Your task to perform on an android device: turn on bluetooth scan Image 0: 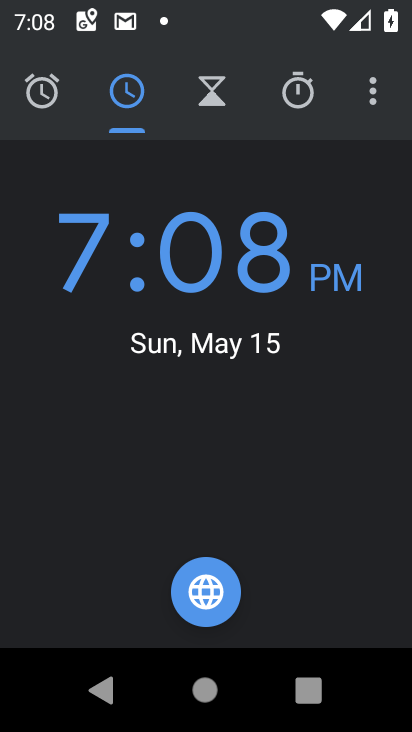
Step 0: press home button
Your task to perform on an android device: turn on bluetooth scan Image 1: 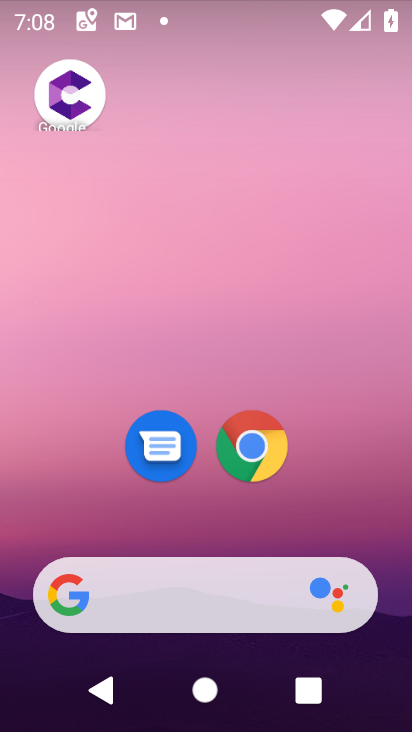
Step 1: drag from (237, 648) to (213, 257)
Your task to perform on an android device: turn on bluetooth scan Image 2: 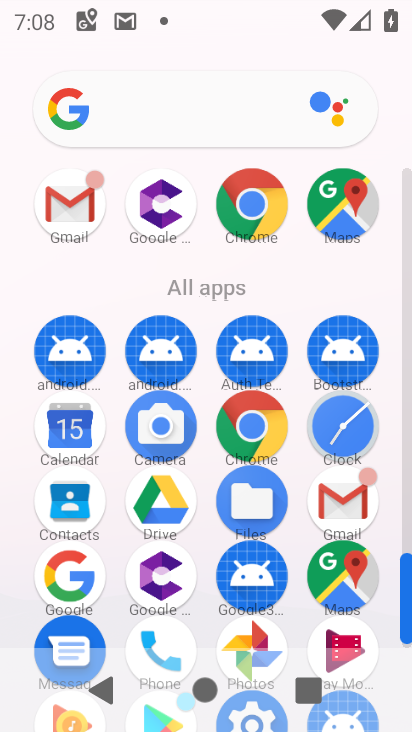
Step 2: drag from (191, 610) to (184, 485)
Your task to perform on an android device: turn on bluetooth scan Image 3: 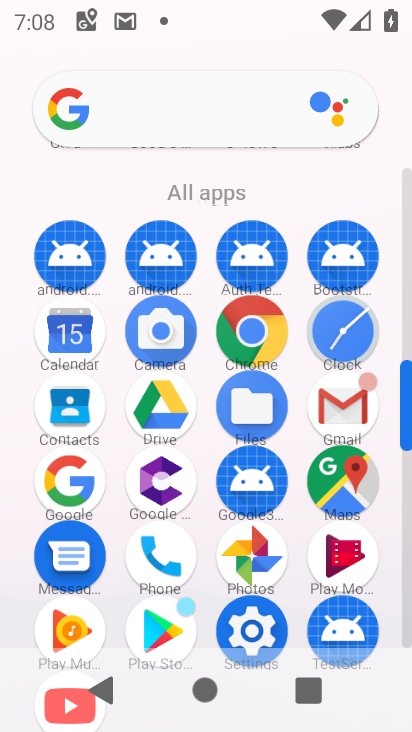
Step 3: click (260, 621)
Your task to perform on an android device: turn on bluetooth scan Image 4: 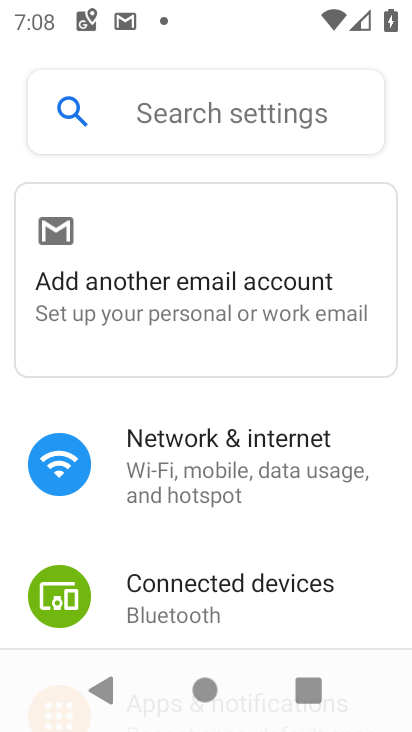
Step 4: click (172, 125)
Your task to perform on an android device: turn on bluetooth scan Image 5: 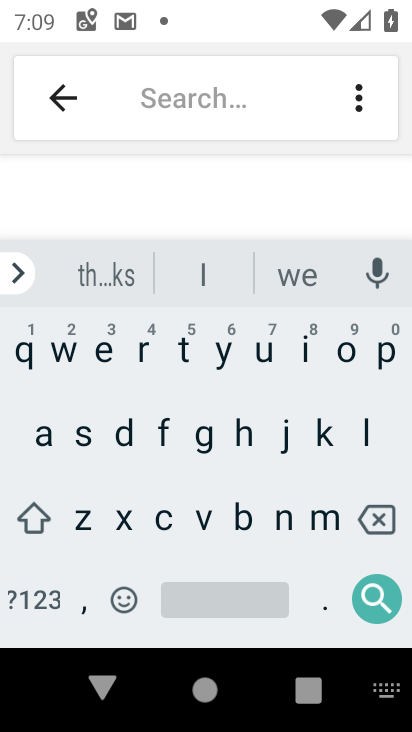
Step 5: click (361, 434)
Your task to perform on an android device: turn on bluetooth scan Image 6: 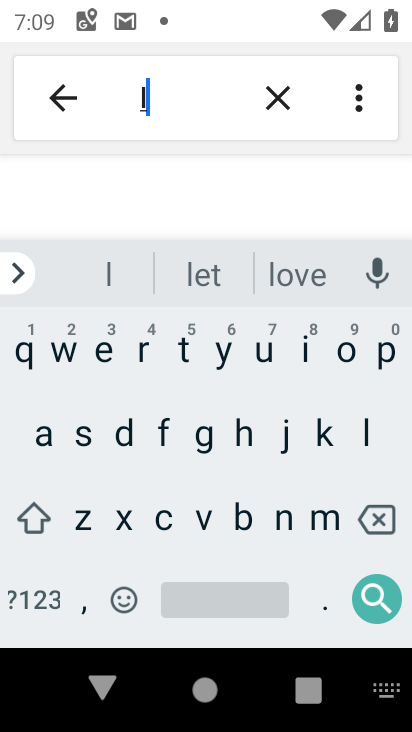
Step 6: click (344, 348)
Your task to perform on an android device: turn on bluetooth scan Image 7: 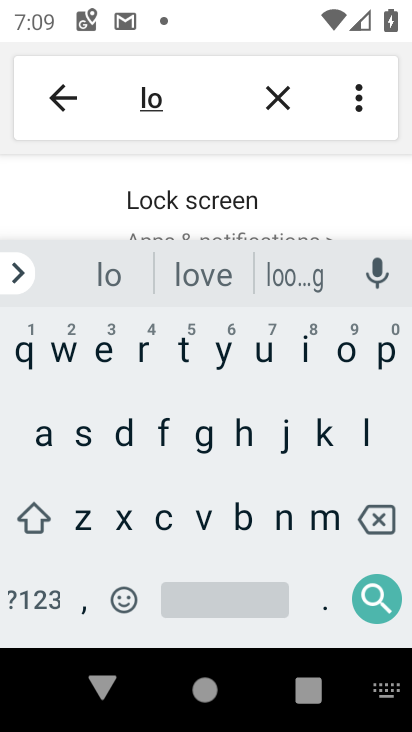
Step 7: press back button
Your task to perform on an android device: turn on bluetooth scan Image 8: 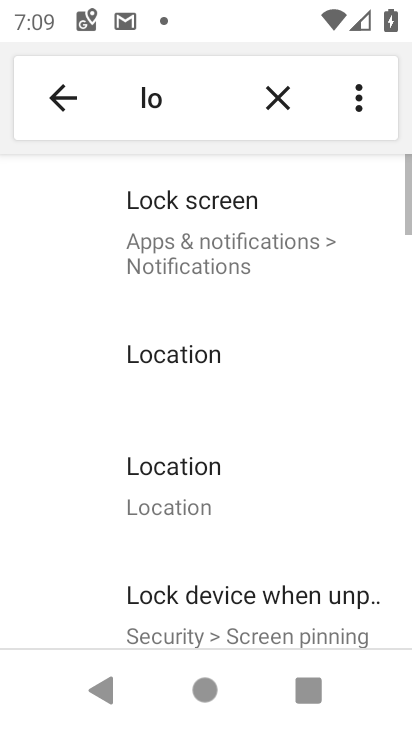
Step 8: click (195, 477)
Your task to perform on an android device: turn on bluetooth scan Image 9: 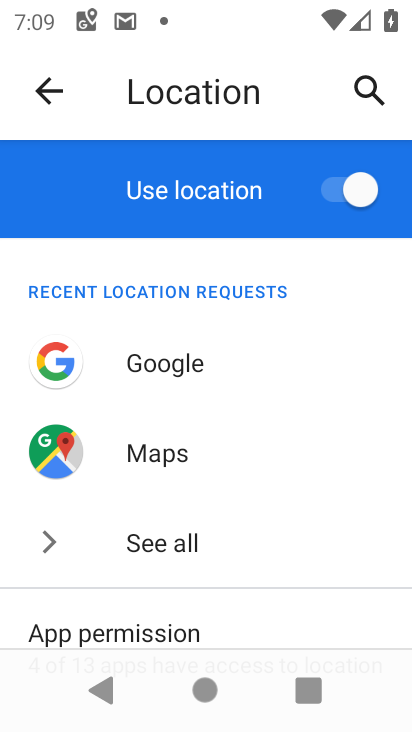
Step 9: drag from (154, 539) to (150, 396)
Your task to perform on an android device: turn on bluetooth scan Image 10: 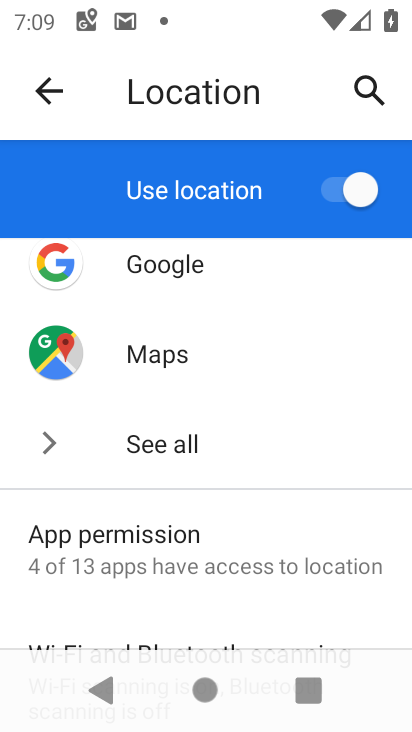
Step 10: drag from (184, 550) to (181, 409)
Your task to perform on an android device: turn on bluetooth scan Image 11: 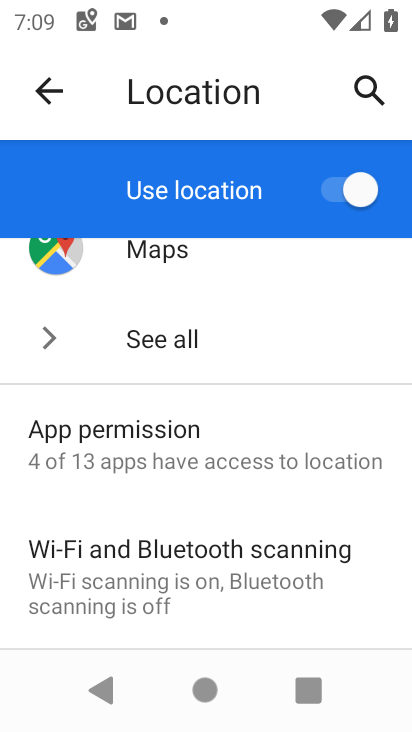
Step 11: click (210, 587)
Your task to perform on an android device: turn on bluetooth scan Image 12: 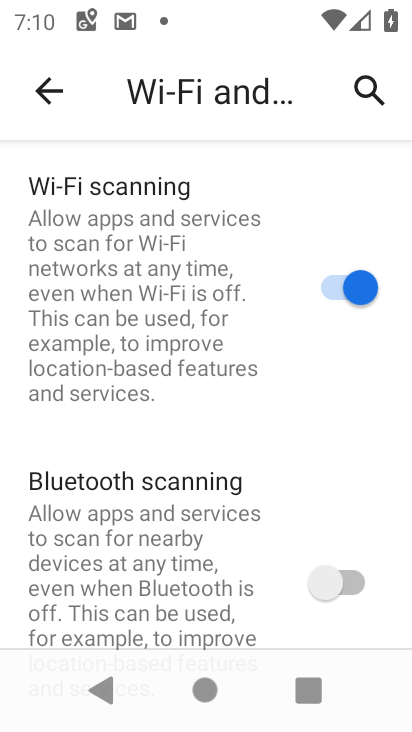
Step 12: click (345, 586)
Your task to perform on an android device: turn on bluetooth scan Image 13: 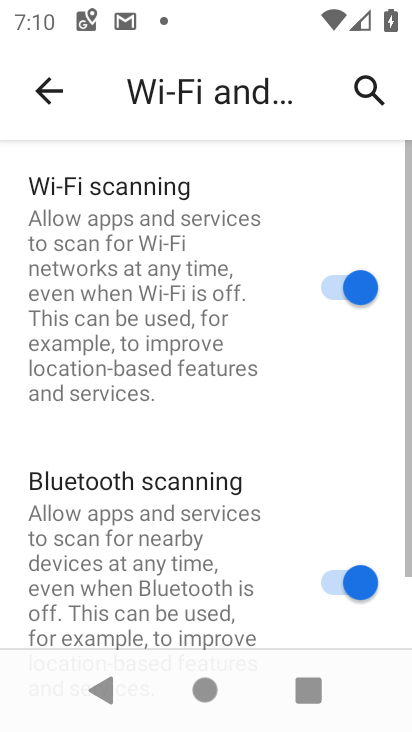
Step 13: task complete